Your task to perform on an android device: turn on data saver in the chrome app Image 0: 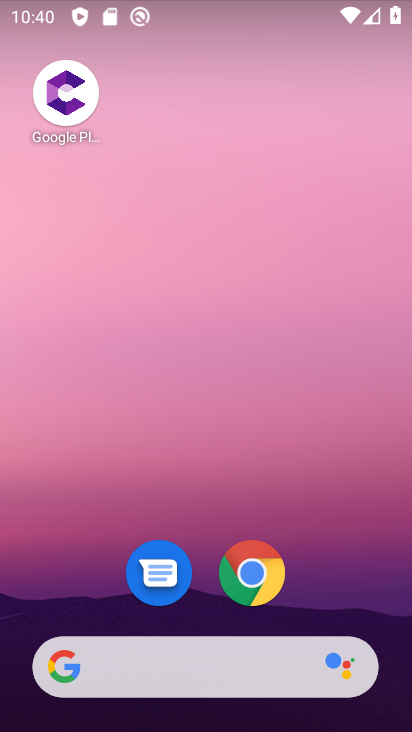
Step 0: click (274, 581)
Your task to perform on an android device: turn on data saver in the chrome app Image 1: 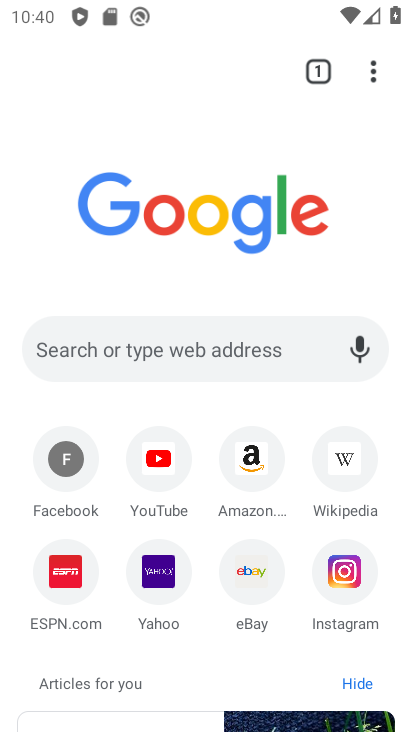
Step 1: click (376, 74)
Your task to perform on an android device: turn on data saver in the chrome app Image 2: 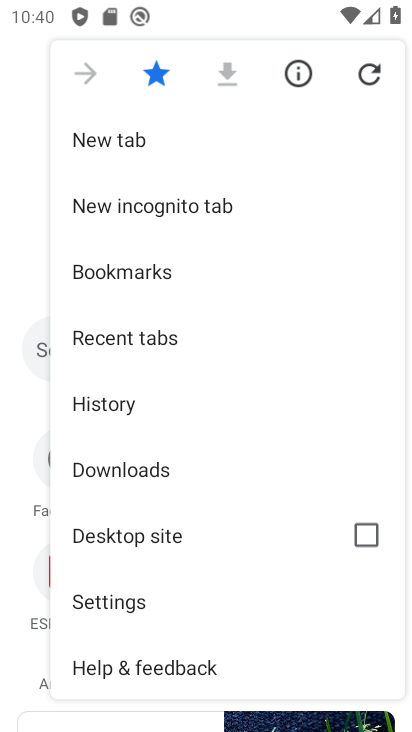
Step 2: drag from (241, 597) to (237, 525)
Your task to perform on an android device: turn on data saver in the chrome app Image 3: 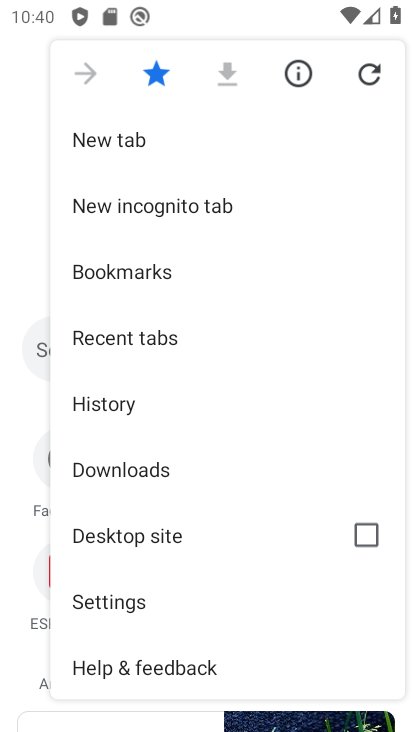
Step 3: click (203, 599)
Your task to perform on an android device: turn on data saver in the chrome app Image 4: 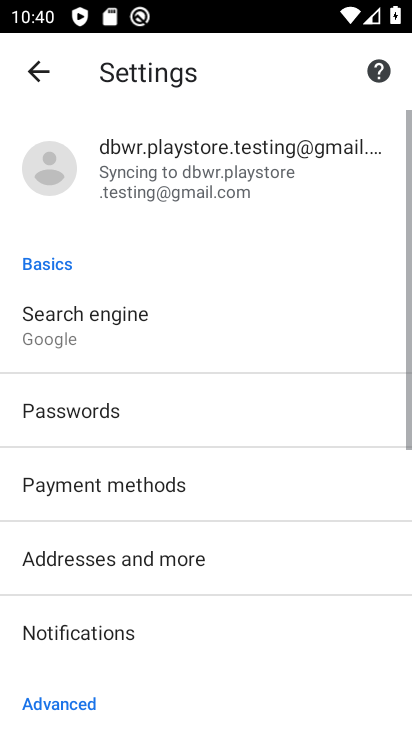
Step 4: drag from (209, 563) to (215, 142)
Your task to perform on an android device: turn on data saver in the chrome app Image 5: 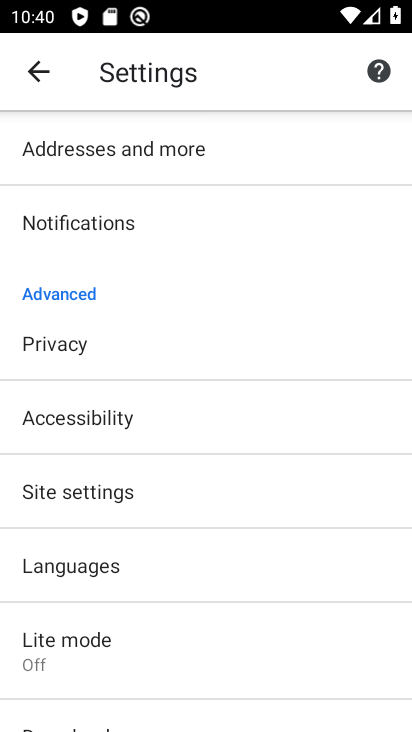
Step 5: click (158, 668)
Your task to perform on an android device: turn on data saver in the chrome app Image 6: 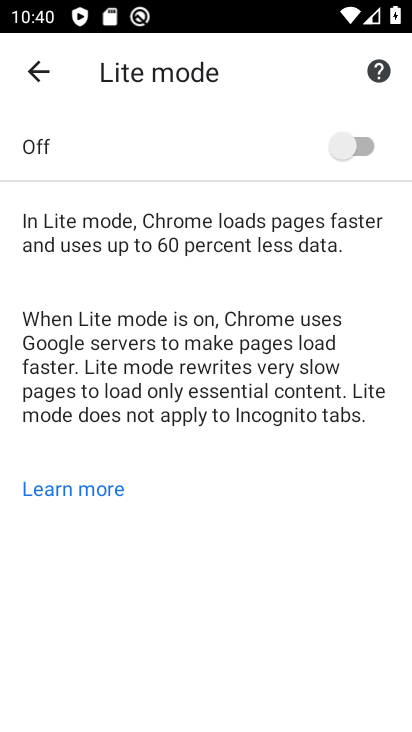
Step 6: click (342, 135)
Your task to perform on an android device: turn on data saver in the chrome app Image 7: 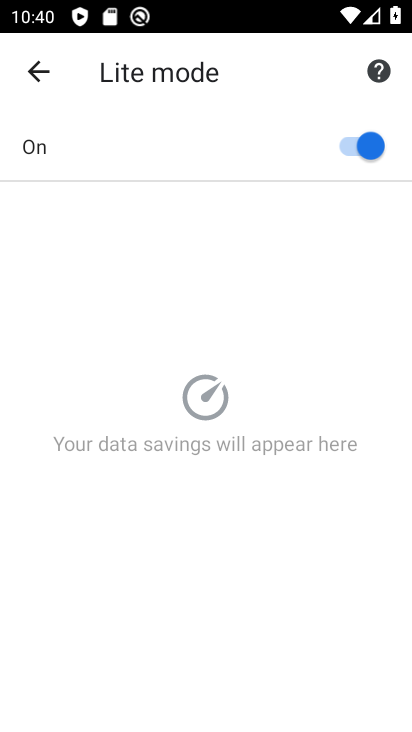
Step 7: task complete